Your task to perform on an android device: turn on the 12-hour format for clock Image 0: 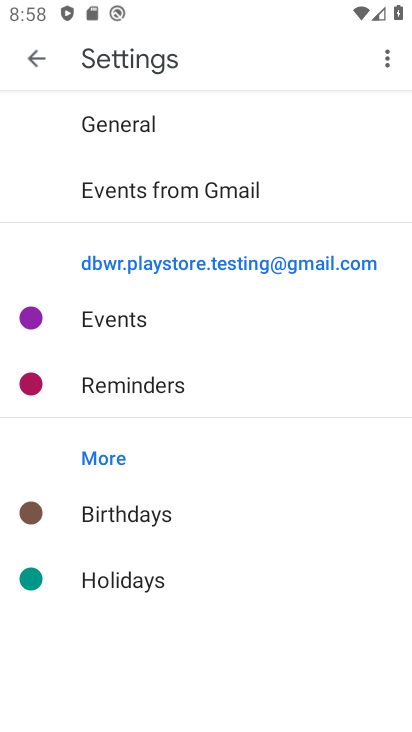
Step 0: press back button
Your task to perform on an android device: turn on the 12-hour format for clock Image 1: 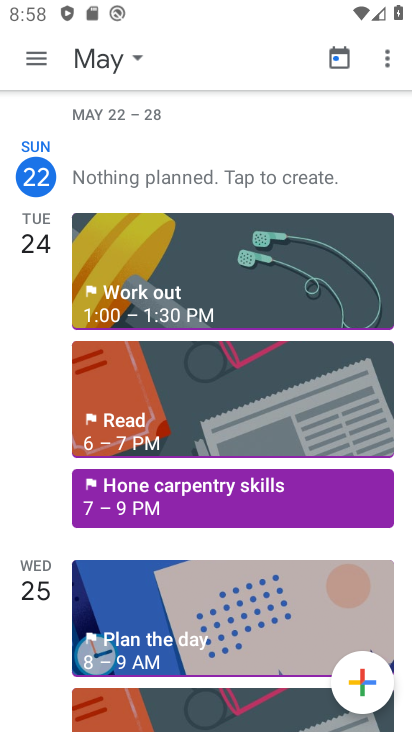
Step 1: press back button
Your task to perform on an android device: turn on the 12-hour format for clock Image 2: 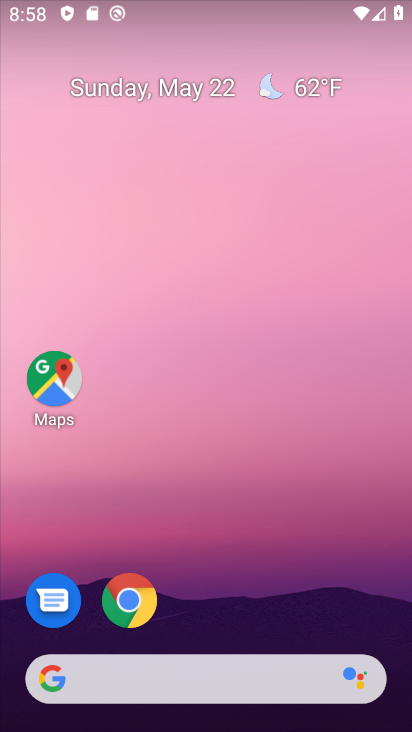
Step 2: drag from (239, 613) to (210, 164)
Your task to perform on an android device: turn on the 12-hour format for clock Image 3: 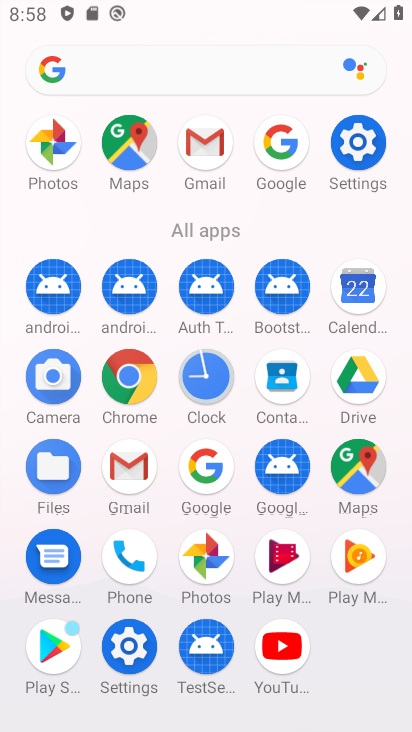
Step 3: click (207, 381)
Your task to perform on an android device: turn on the 12-hour format for clock Image 4: 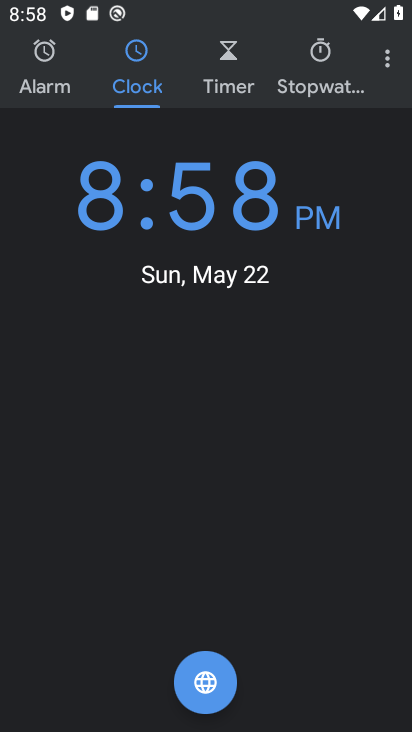
Step 4: click (387, 63)
Your task to perform on an android device: turn on the 12-hour format for clock Image 5: 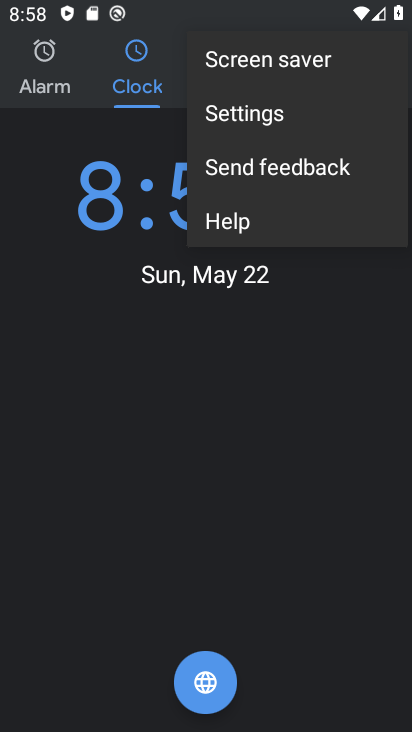
Step 5: click (268, 119)
Your task to perform on an android device: turn on the 12-hour format for clock Image 6: 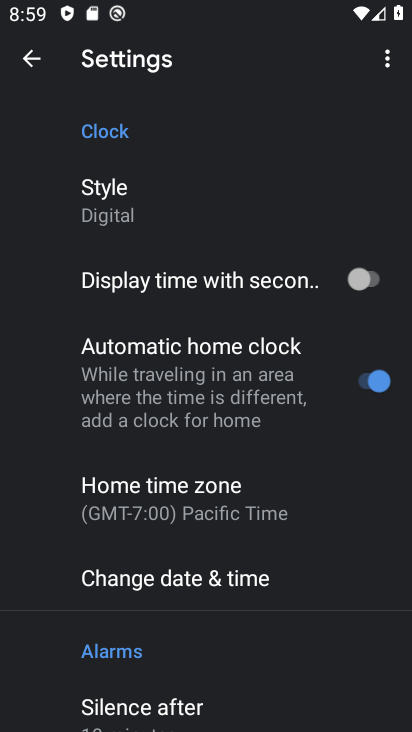
Step 6: click (168, 581)
Your task to perform on an android device: turn on the 12-hour format for clock Image 7: 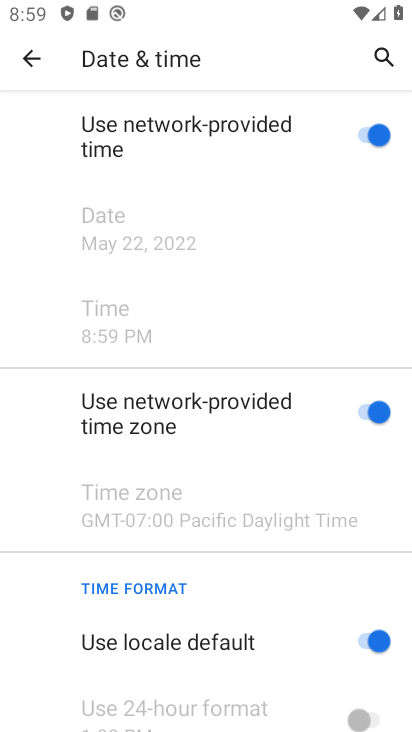
Step 7: task complete